Your task to perform on an android device: delete browsing data in the chrome app Image 0: 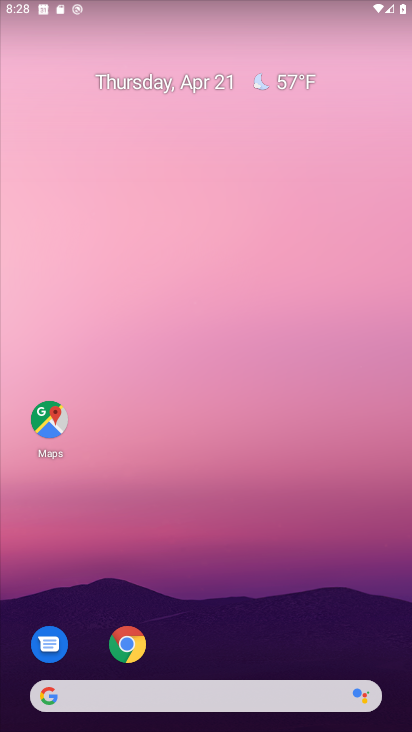
Step 0: click (146, 592)
Your task to perform on an android device: delete browsing data in the chrome app Image 1: 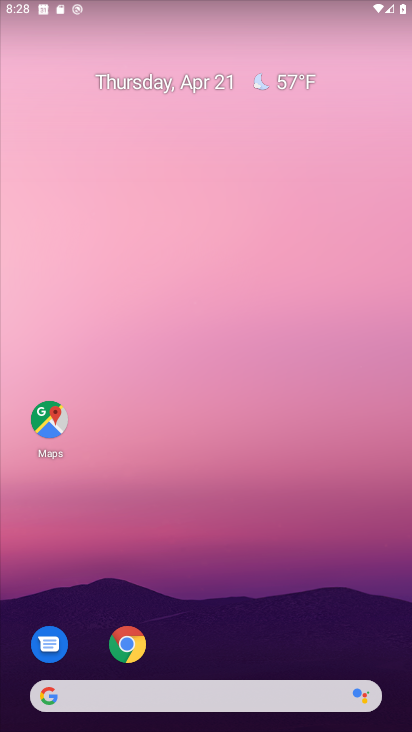
Step 1: click (130, 651)
Your task to perform on an android device: delete browsing data in the chrome app Image 2: 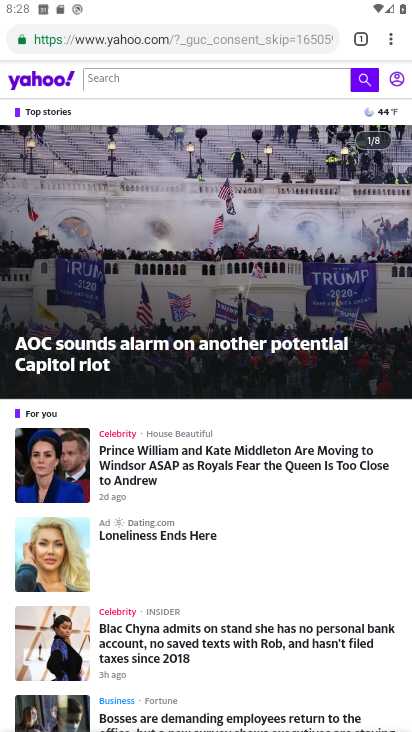
Step 2: click (388, 35)
Your task to perform on an android device: delete browsing data in the chrome app Image 3: 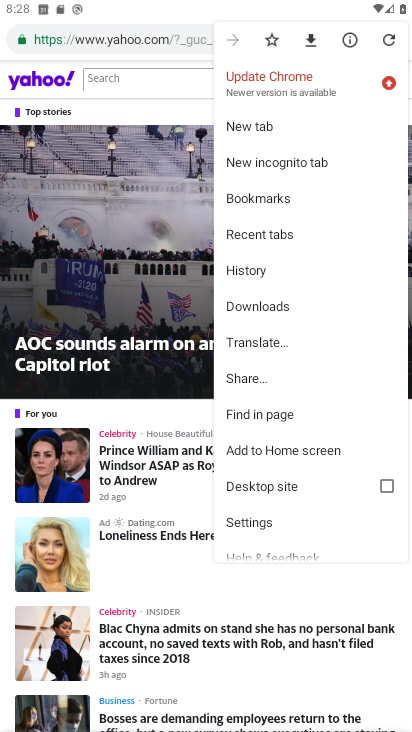
Step 3: click (275, 262)
Your task to perform on an android device: delete browsing data in the chrome app Image 4: 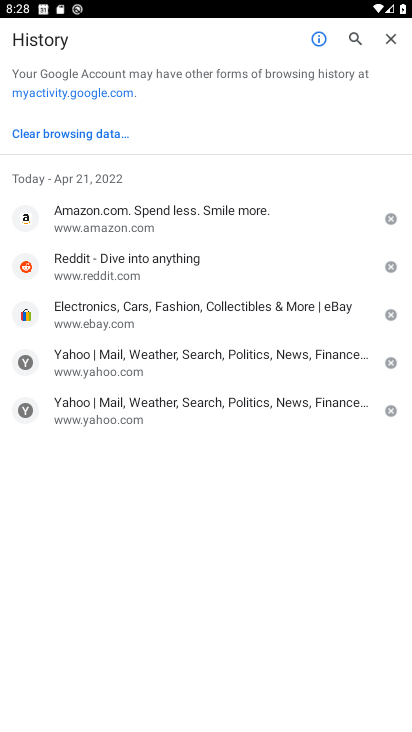
Step 4: click (50, 133)
Your task to perform on an android device: delete browsing data in the chrome app Image 5: 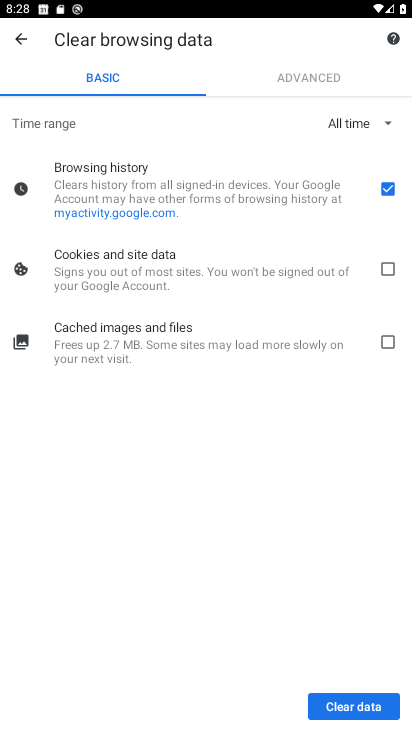
Step 5: click (391, 341)
Your task to perform on an android device: delete browsing data in the chrome app Image 6: 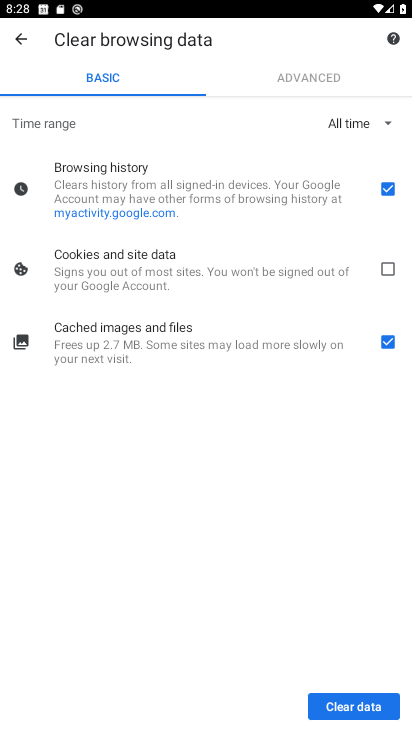
Step 6: click (391, 269)
Your task to perform on an android device: delete browsing data in the chrome app Image 7: 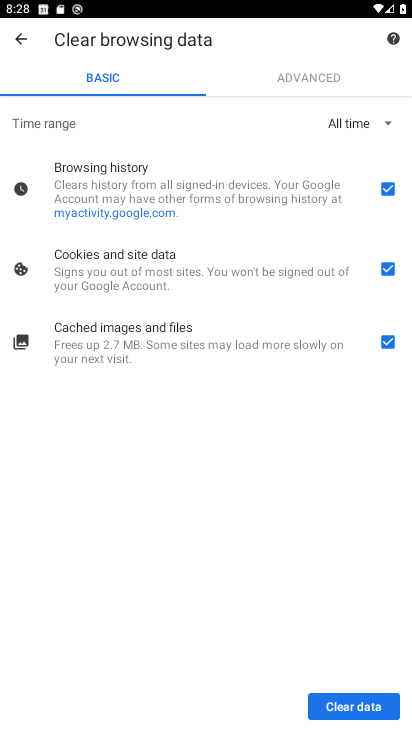
Step 7: click (369, 701)
Your task to perform on an android device: delete browsing data in the chrome app Image 8: 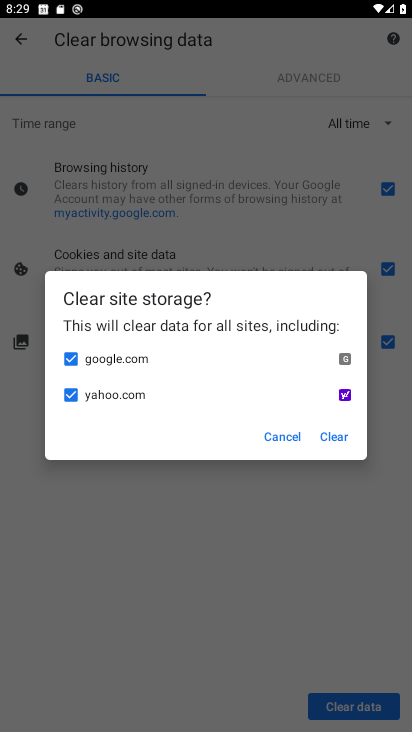
Step 8: click (339, 507)
Your task to perform on an android device: delete browsing data in the chrome app Image 9: 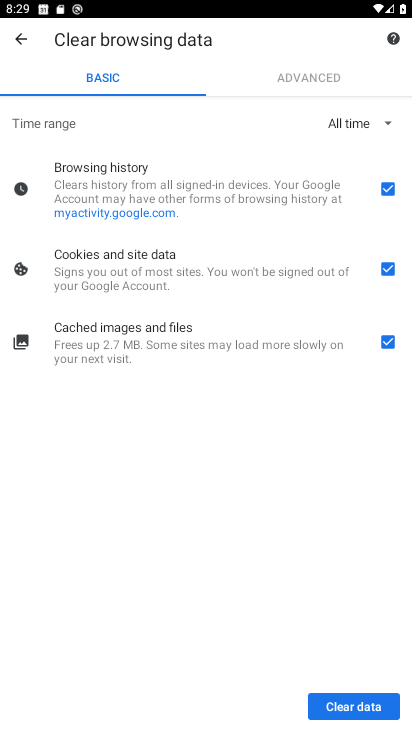
Step 9: click (367, 706)
Your task to perform on an android device: delete browsing data in the chrome app Image 10: 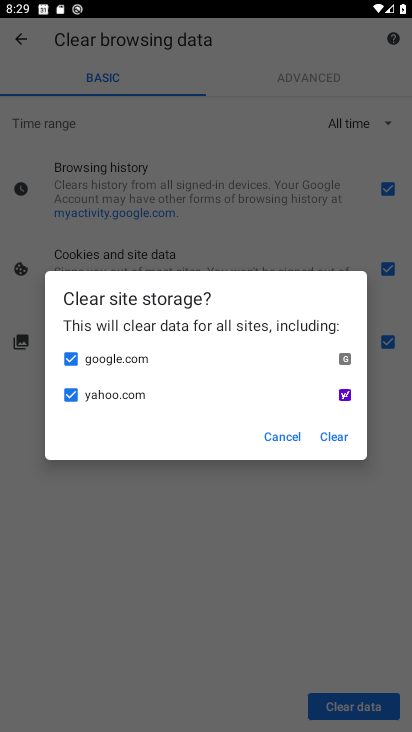
Step 10: click (336, 434)
Your task to perform on an android device: delete browsing data in the chrome app Image 11: 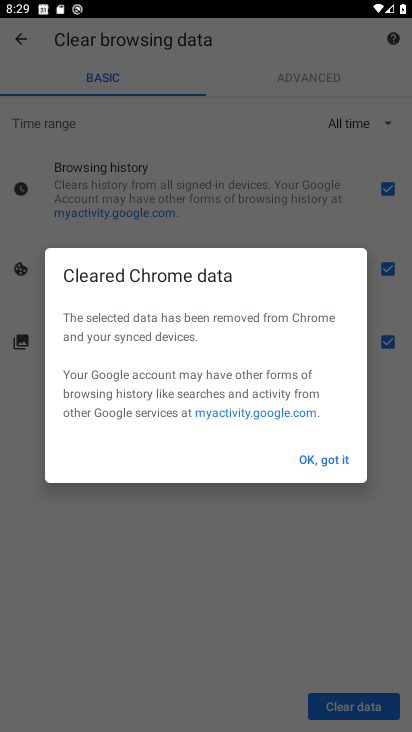
Step 11: click (330, 459)
Your task to perform on an android device: delete browsing data in the chrome app Image 12: 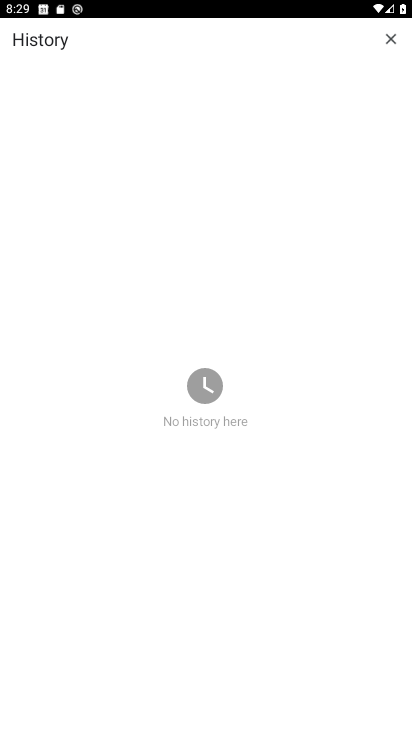
Step 12: task complete